Your task to perform on an android device: create a new album in the google photos Image 0: 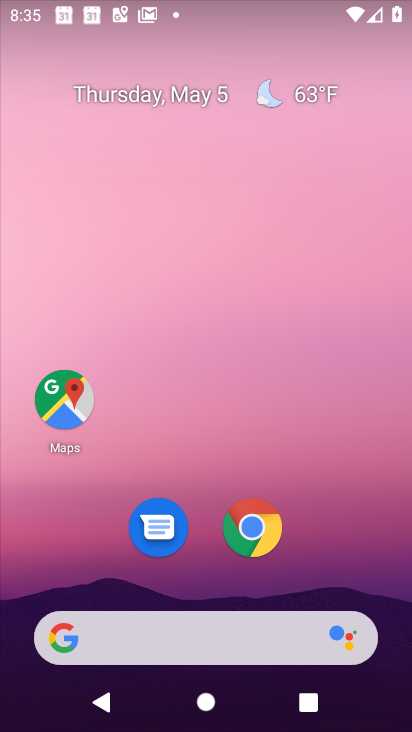
Step 0: drag from (265, 699) to (207, 8)
Your task to perform on an android device: create a new album in the google photos Image 1: 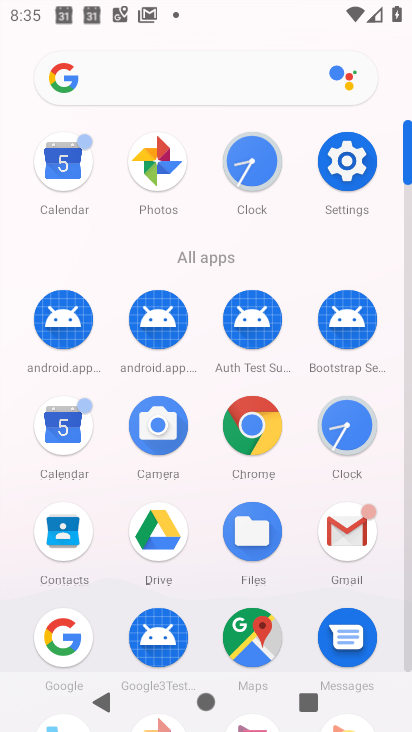
Step 1: click (156, 174)
Your task to perform on an android device: create a new album in the google photos Image 2: 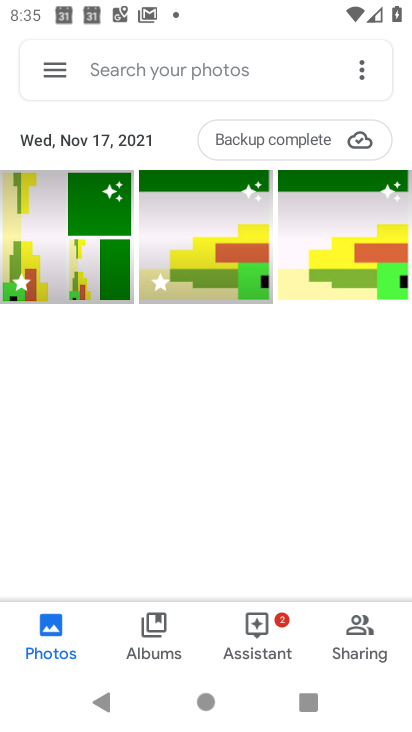
Step 2: click (105, 227)
Your task to perform on an android device: create a new album in the google photos Image 3: 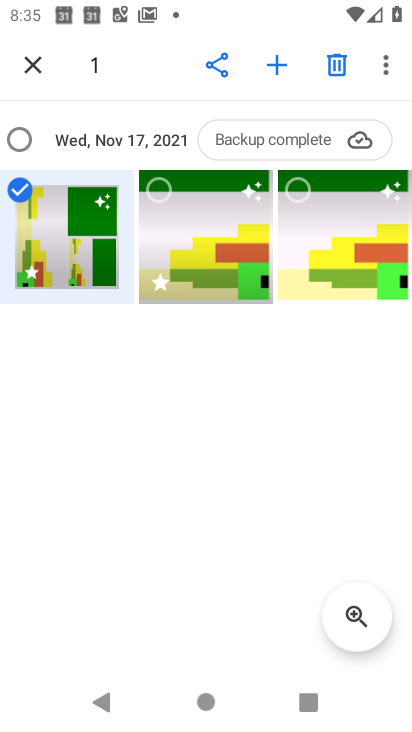
Step 3: click (276, 63)
Your task to perform on an android device: create a new album in the google photos Image 4: 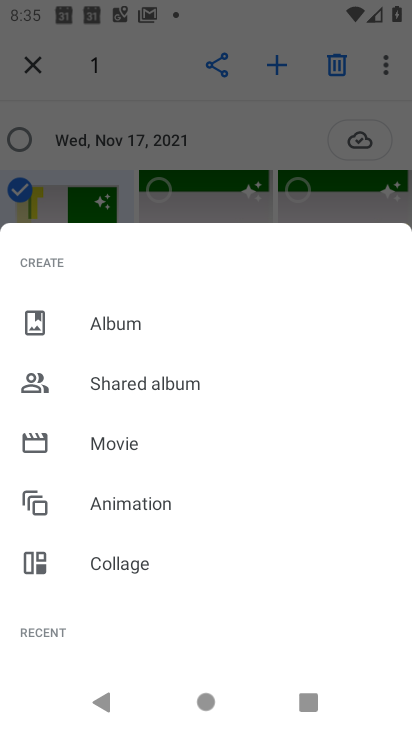
Step 4: click (136, 331)
Your task to perform on an android device: create a new album in the google photos Image 5: 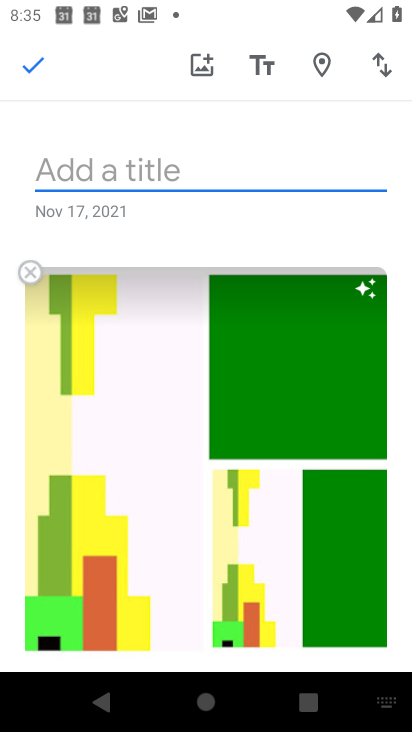
Step 5: type "ergdfh"
Your task to perform on an android device: create a new album in the google photos Image 6: 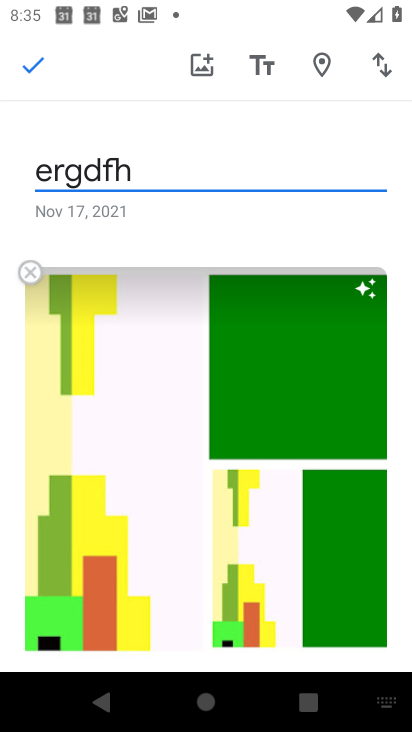
Step 6: click (31, 72)
Your task to perform on an android device: create a new album in the google photos Image 7: 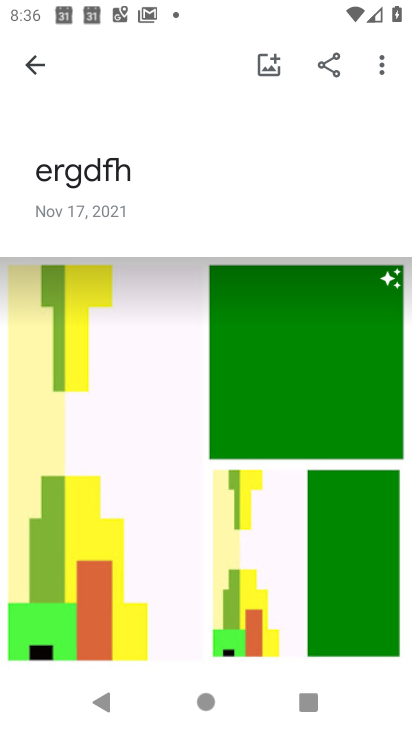
Step 7: task complete